Your task to perform on an android device: open app "Adobe Acrobat Reader: Edit PDF" (install if not already installed) Image 0: 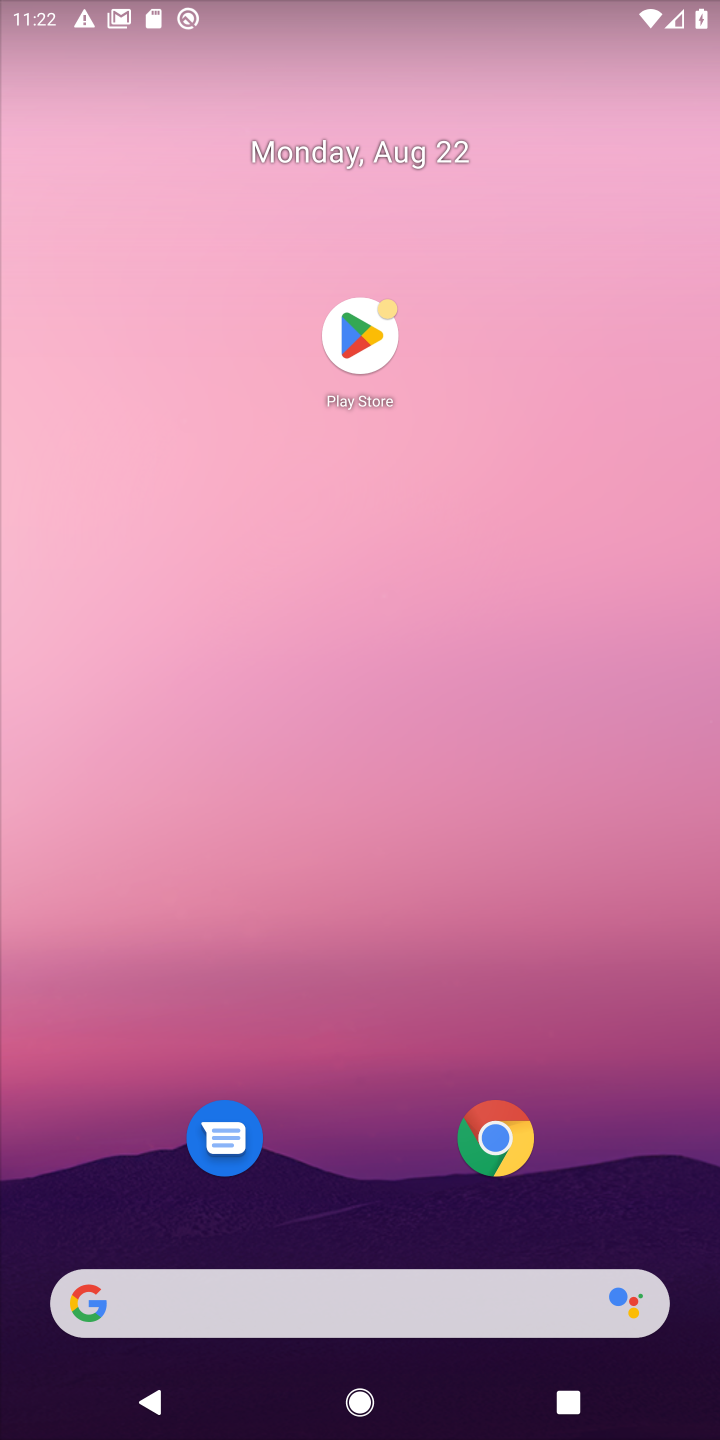
Step 0: press back button
Your task to perform on an android device: open app "Adobe Acrobat Reader: Edit PDF" (install if not already installed) Image 1: 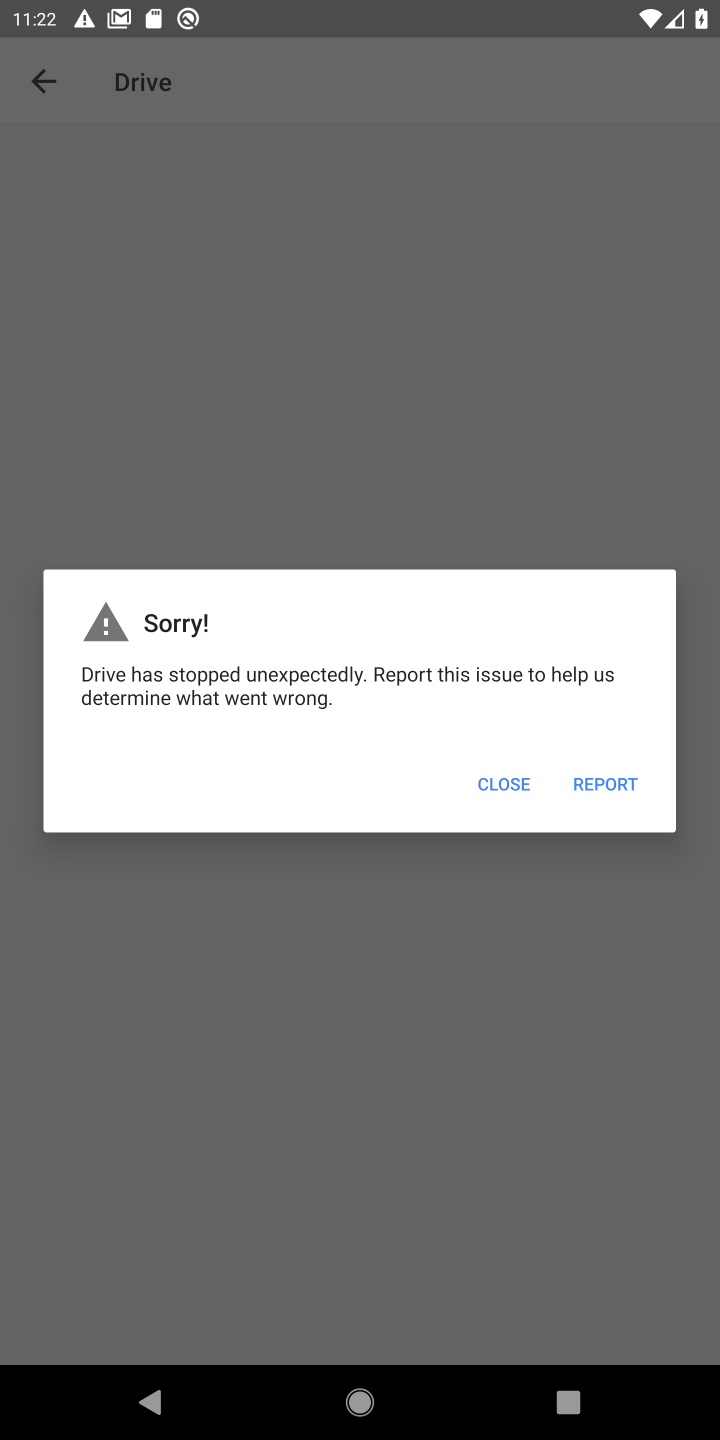
Step 1: press back button
Your task to perform on an android device: open app "Adobe Acrobat Reader: Edit PDF" (install if not already installed) Image 2: 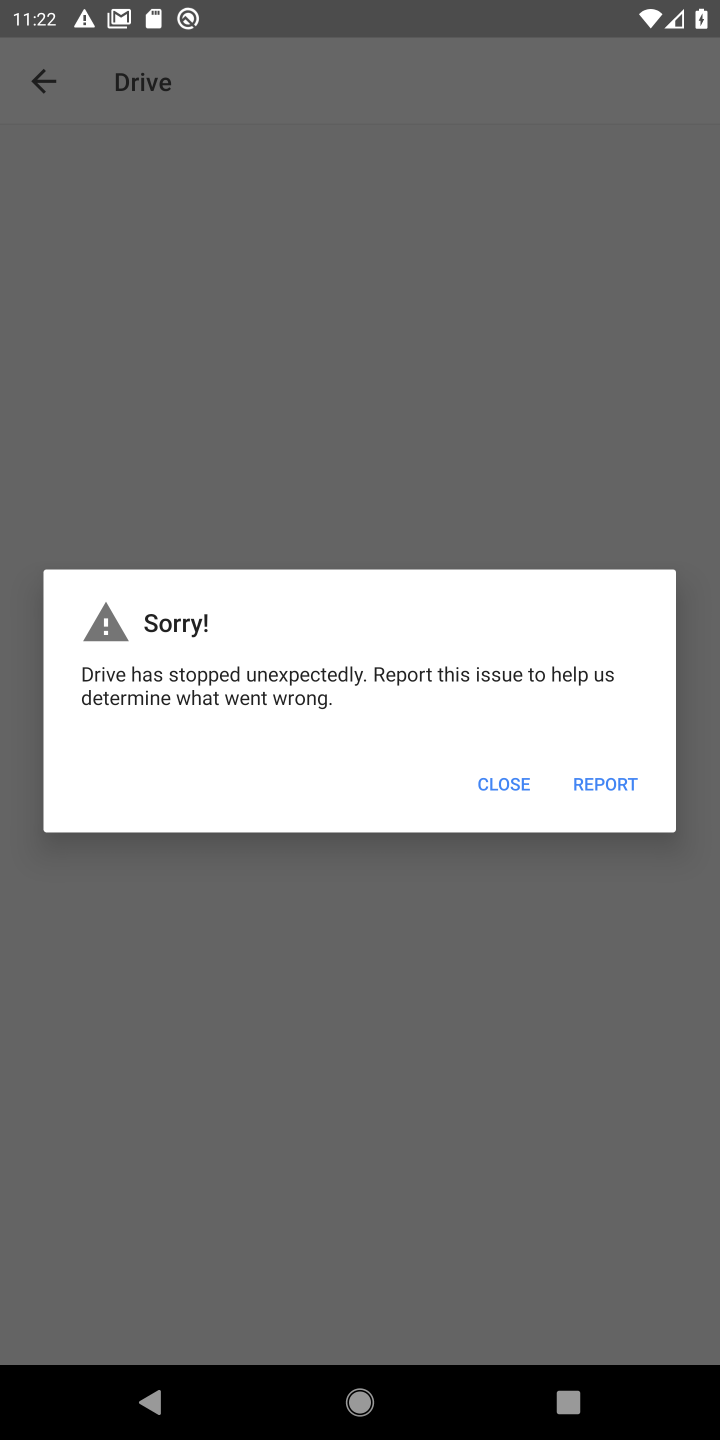
Step 2: press home button
Your task to perform on an android device: open app "Adobe Acrobat Reader: Edit PDF" (install if not already installed) Image 3: 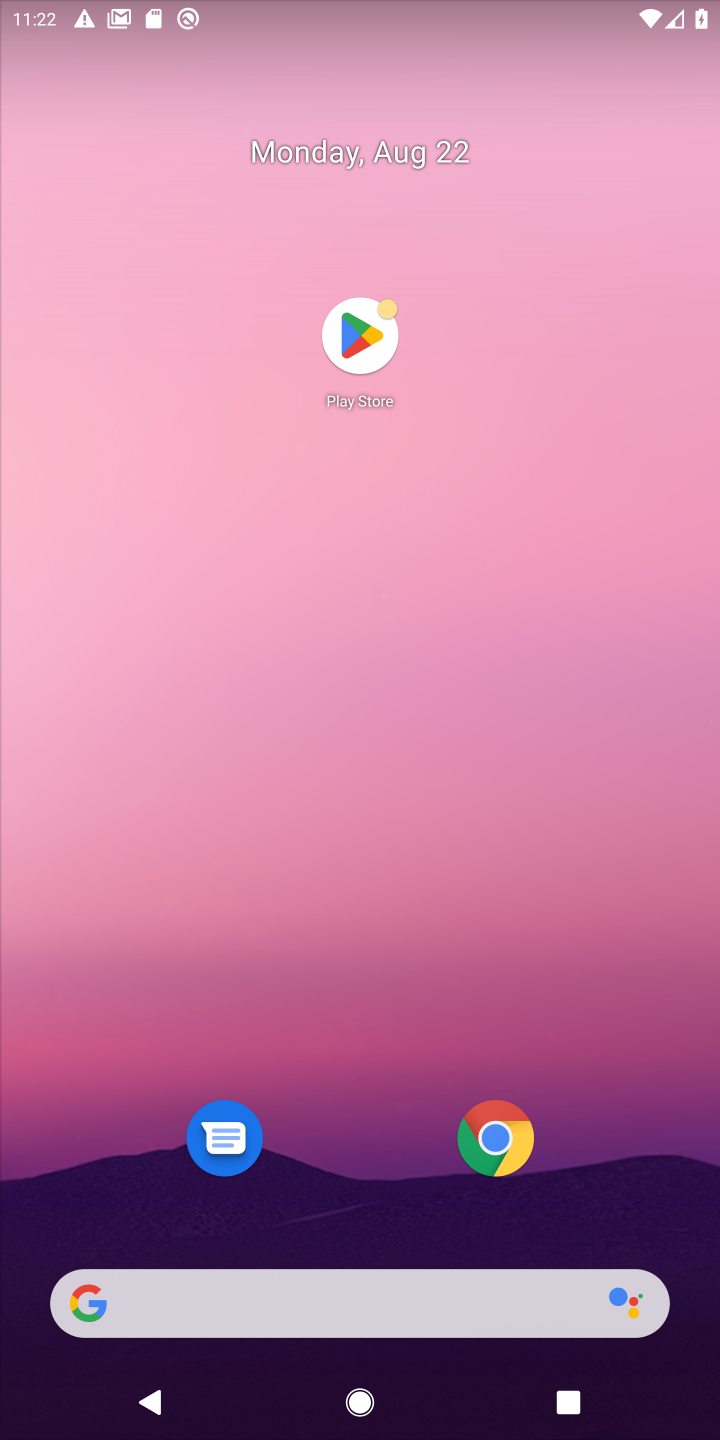
Step 3: click (372, 345)
Your task to perform on an android device: open app "Adobe Acrobat Reader: Edit PDF" (install if not already installed) Image 4: 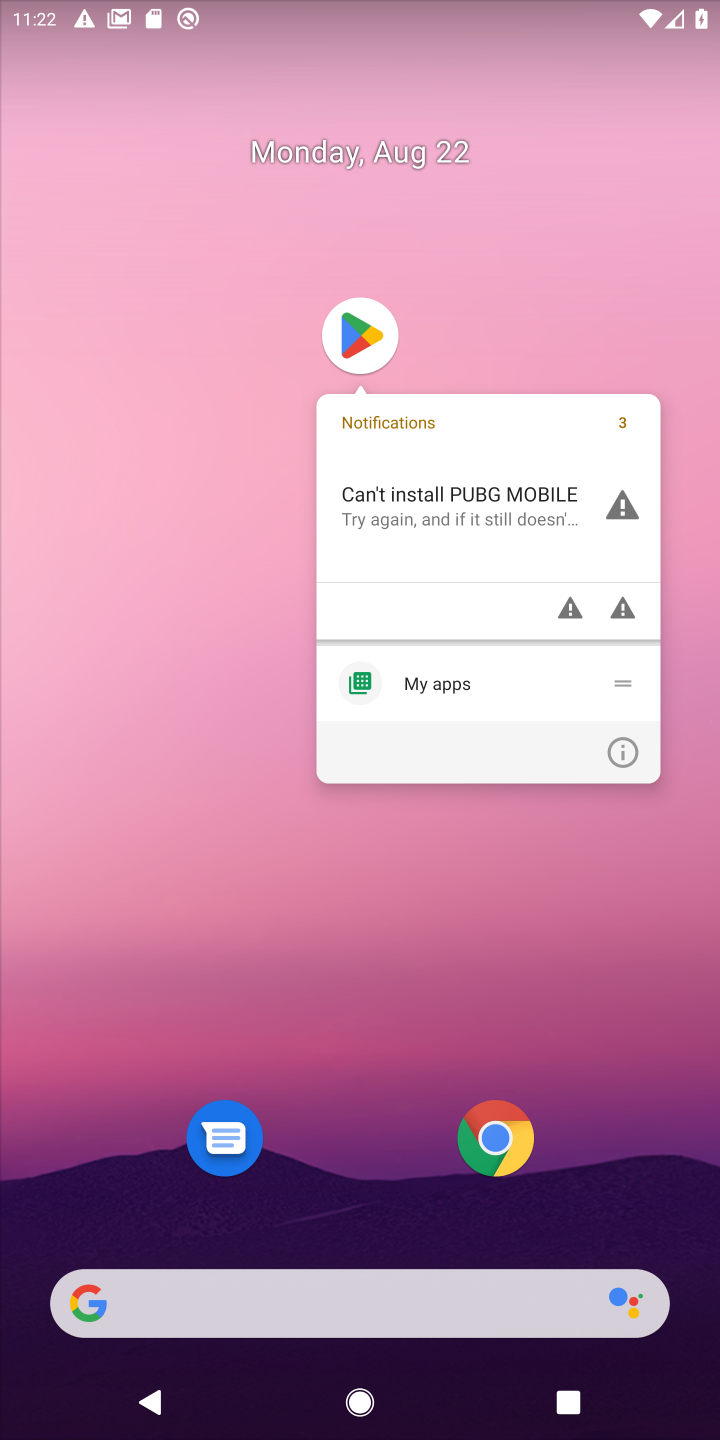
Step 4: click (363, 331)
Your task to perform on an android device: open app "Adobe Acrobat Reader: Edit PDF" (install if not already installed) Image 5: 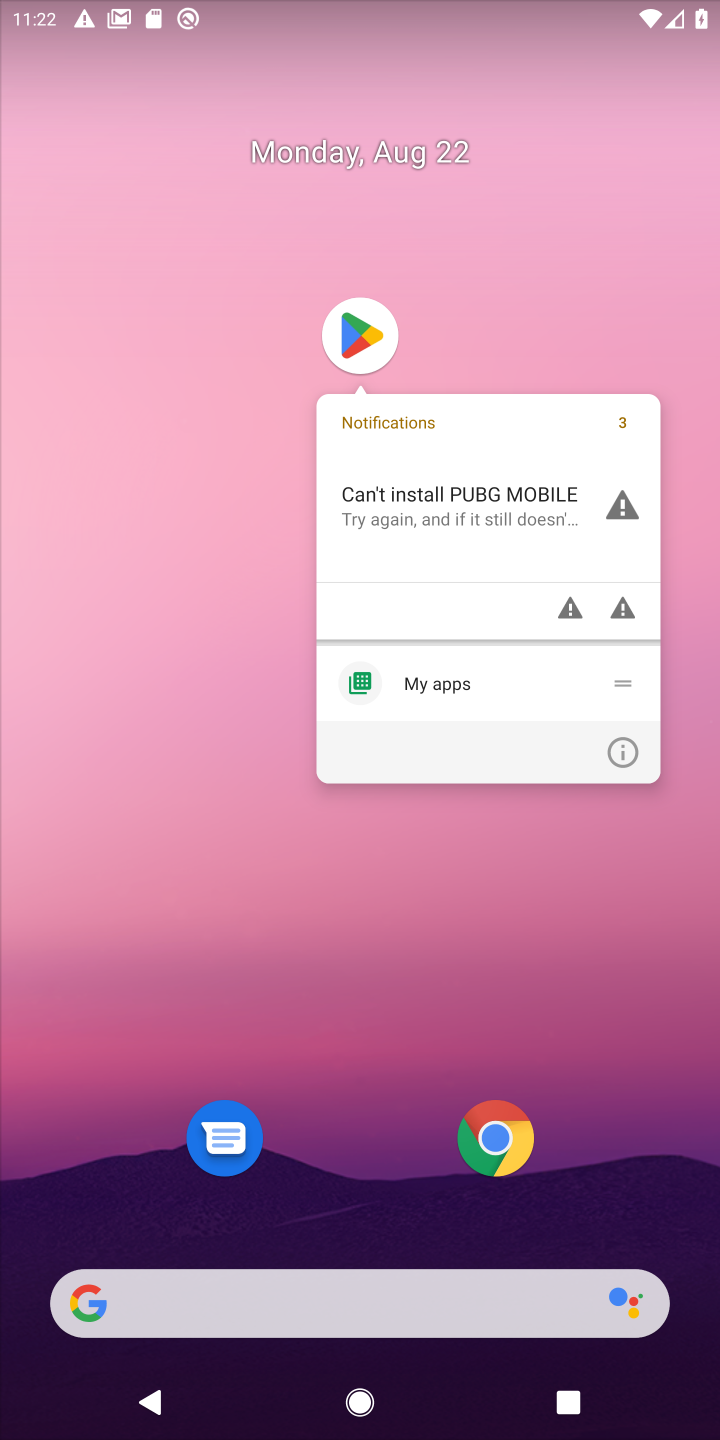
Step 5: click (363, 331)
Your task to perform on an android device: open app "Adobe Acrobat Reader: Edit PDF" (install if not already installed) Image 6: 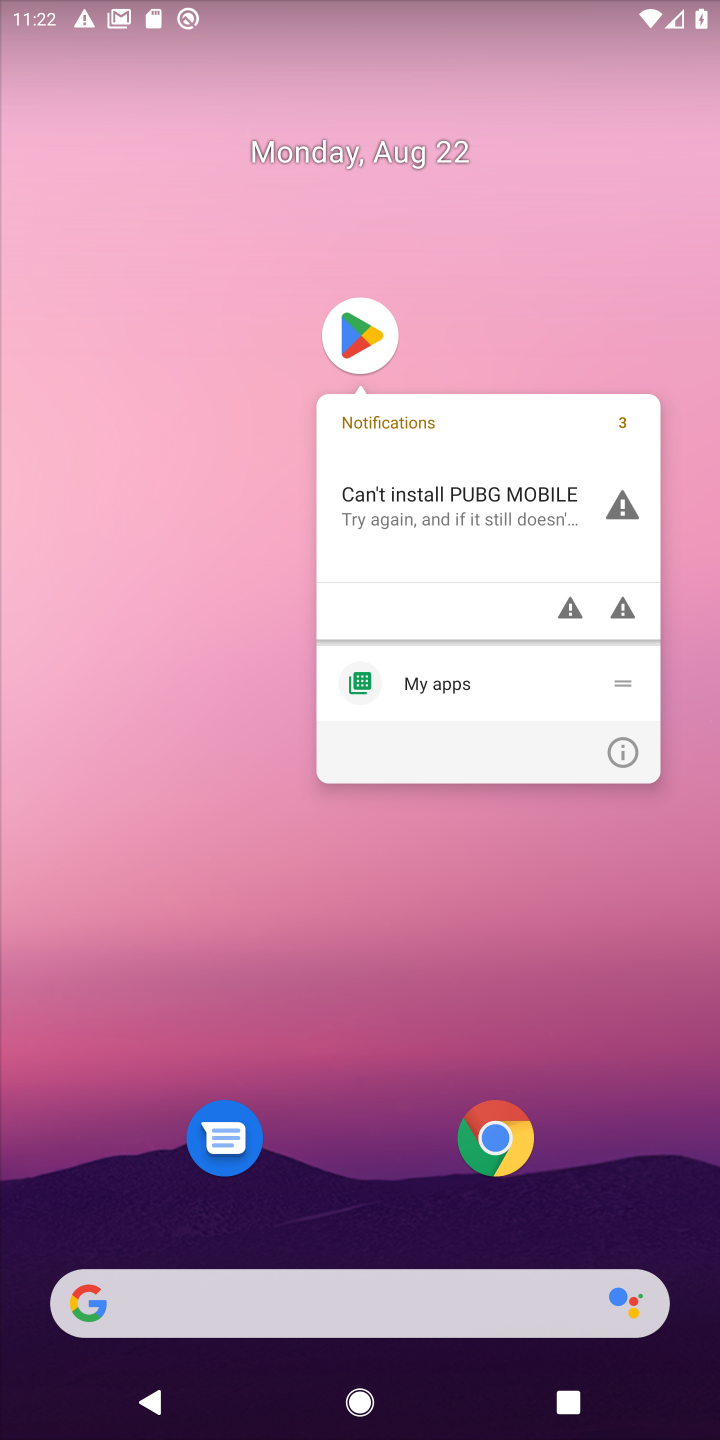
Step 6: click (363, 331)
Your task to perform on an android device: open app "Adobe Acrobat Reader: Edit PDF" (install if not already installed) Image 7: 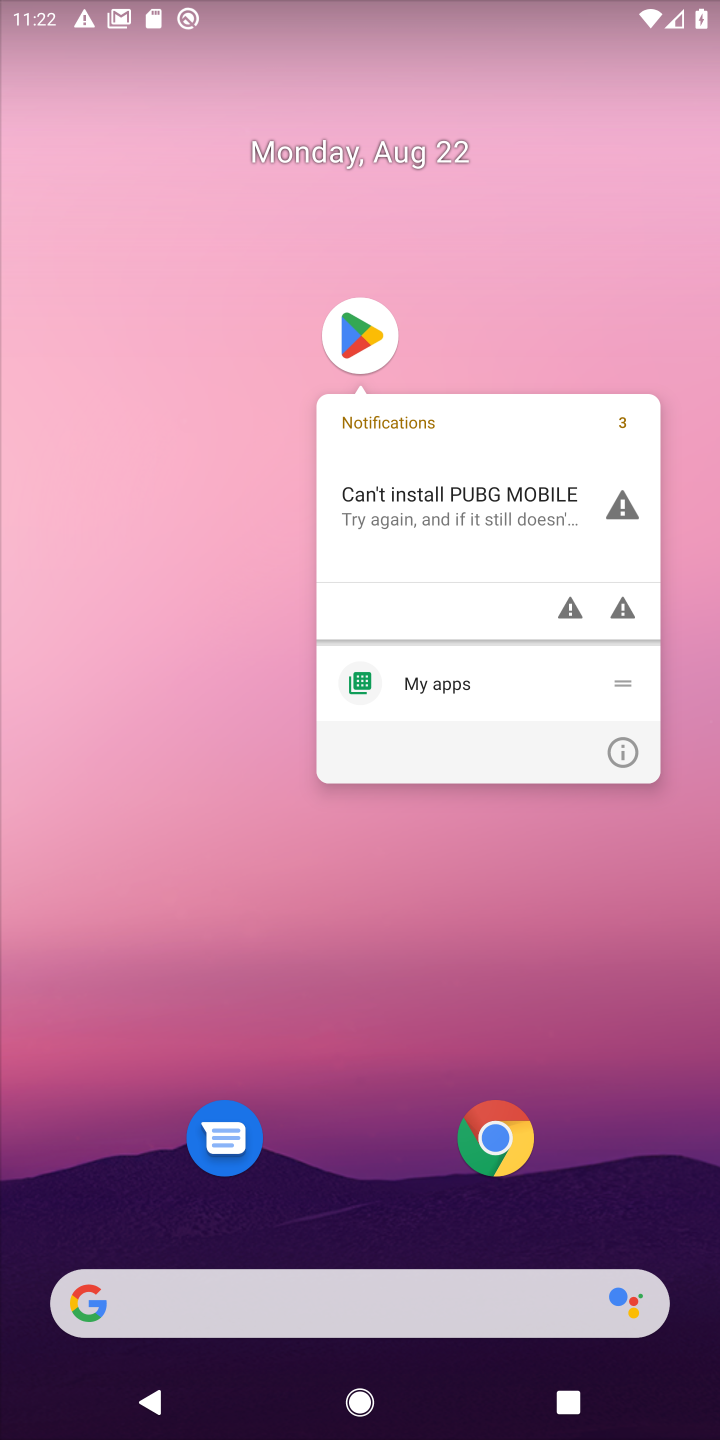
Step 7: click (363, 331)
Your task to perform on an android device: open app "Adobe Acrobat Reader: Edit PDF" (install if not already installed) Image 8: 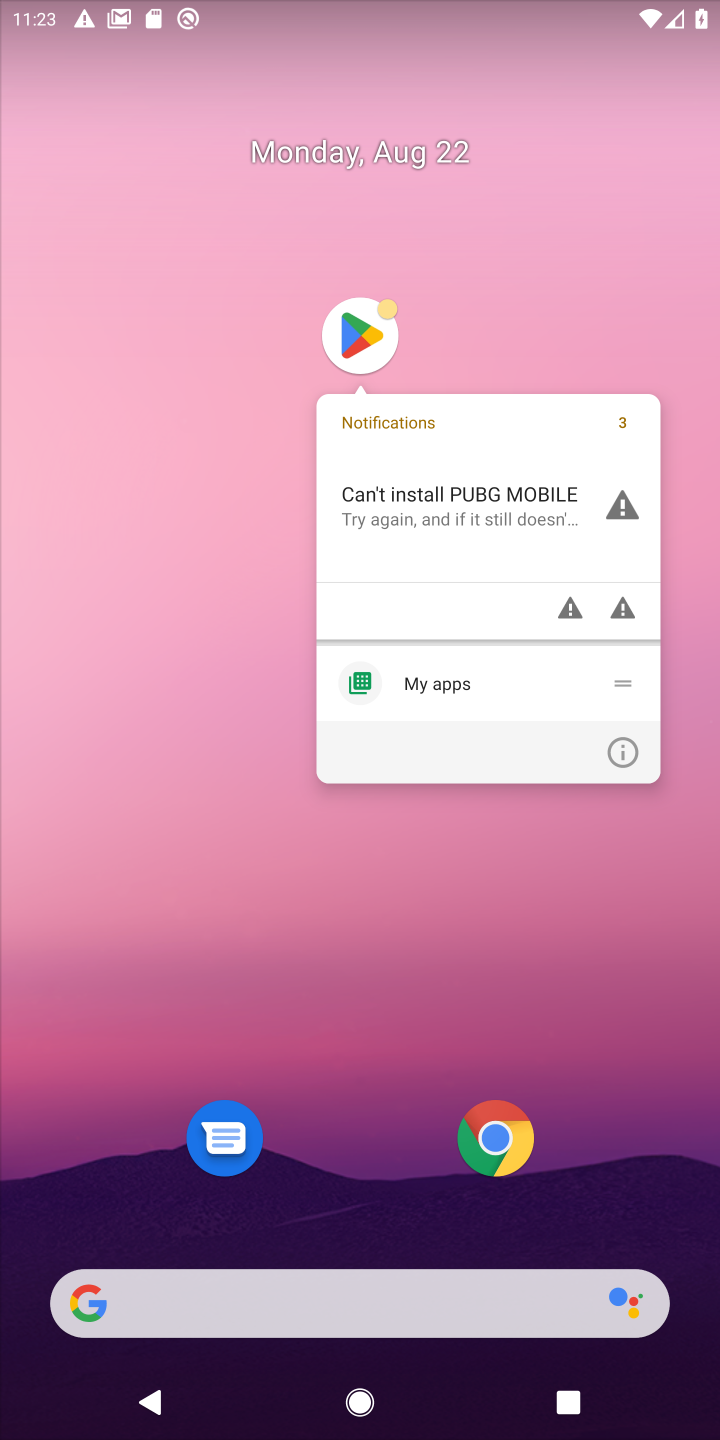
Step 8: click (371, 331)
Your task to perform on an android device: open app "Adobe Acrobat Reader: Edit PDF" (install if not already installed) Image 9: 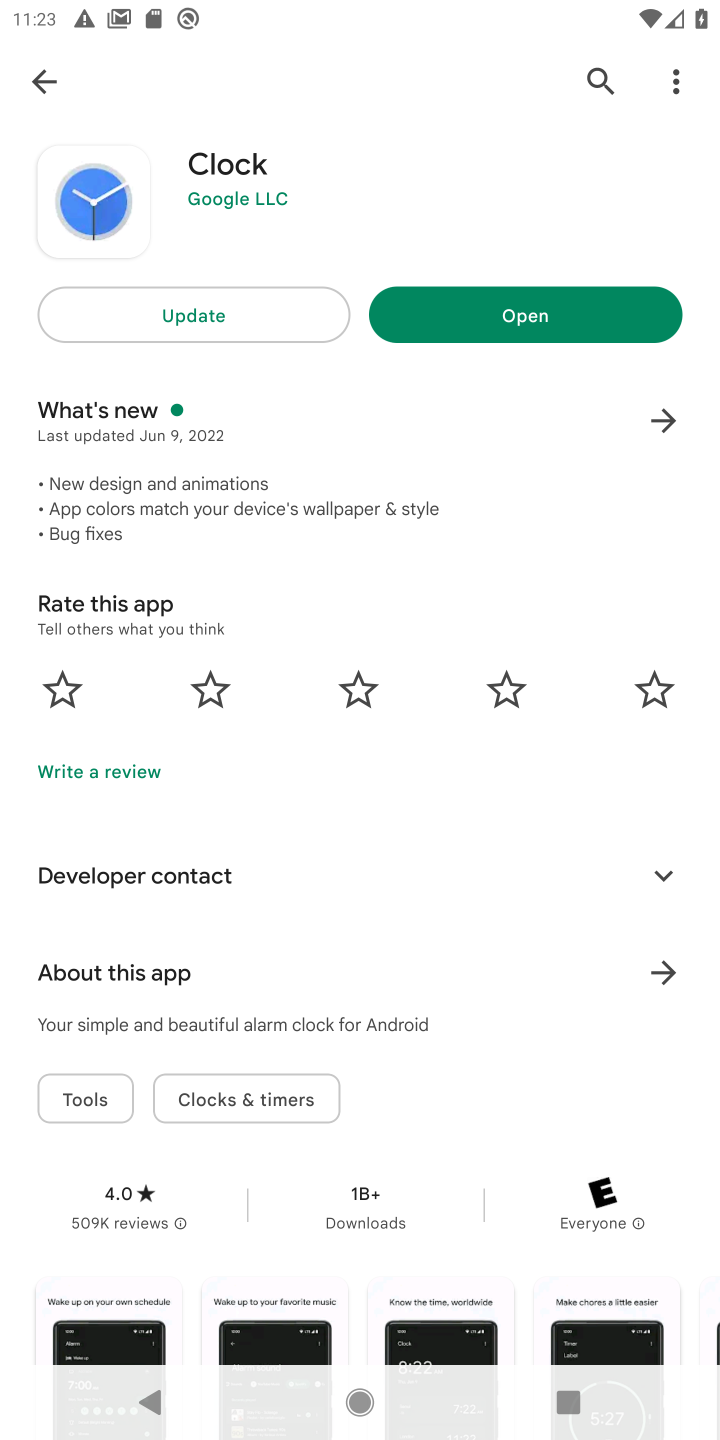
Step 9: click (594, 73)
Your task to perform on an android device: open app "Adobe Acrobat Reader: Edit PDF" (install if not already installed) Image 10: 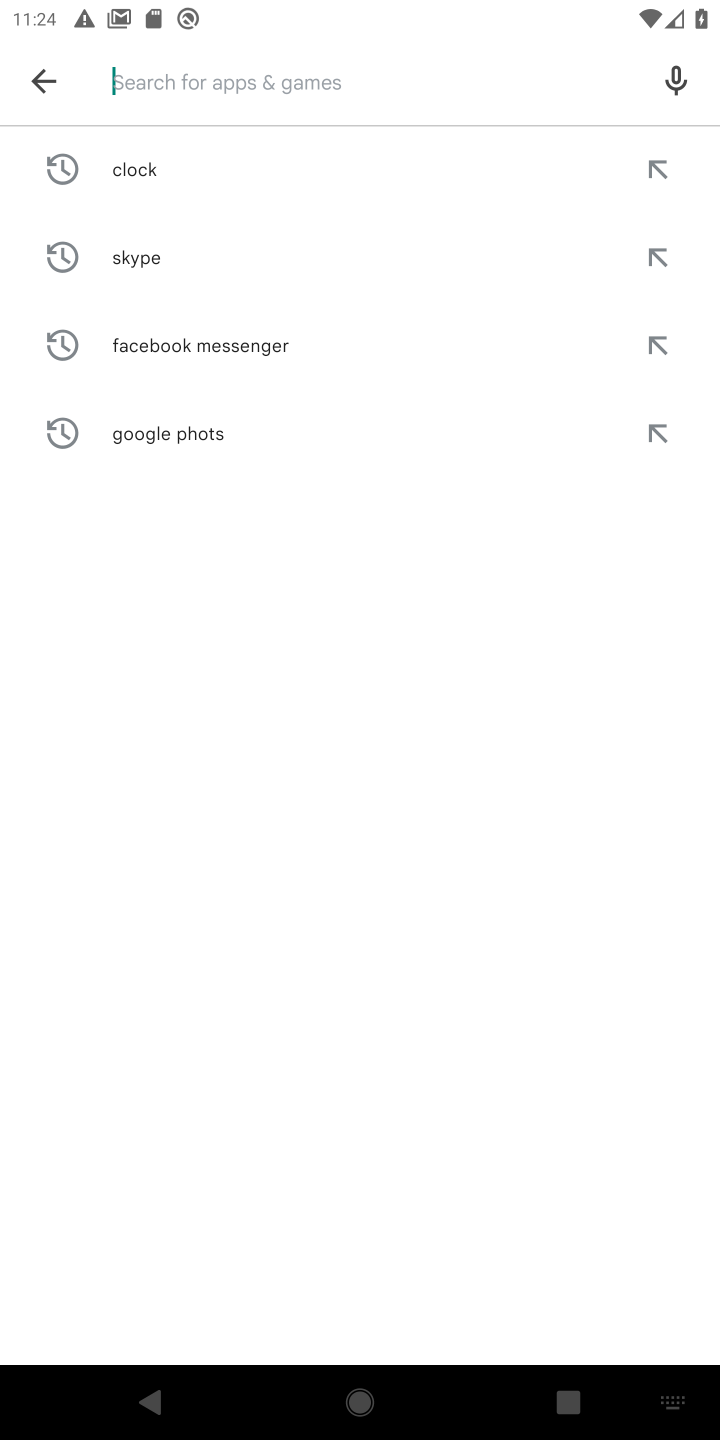
Step 10: click (596, 73)
Your task to perform on an android device: open app "Adobe Acrobat Reader: Edit PDF" (install if not already installed) Image 11: 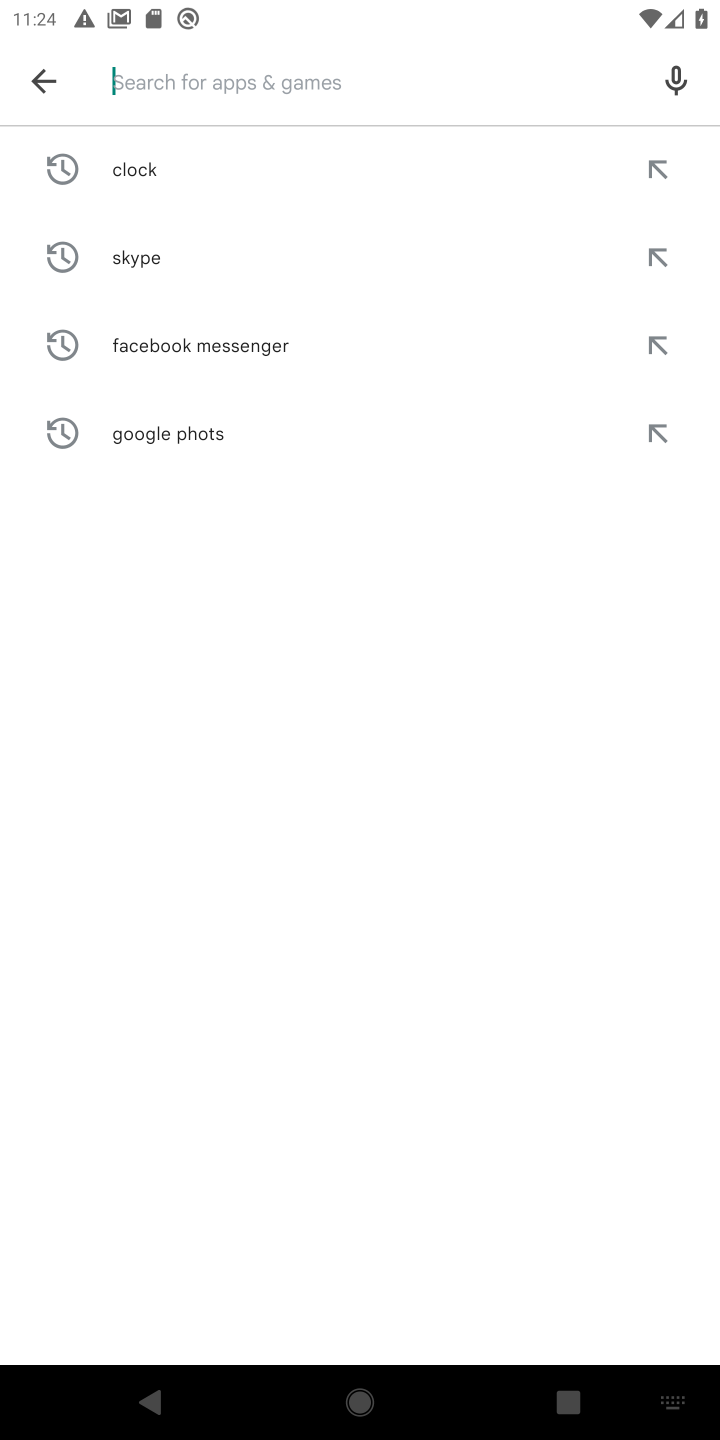
Step 11: type "Adobe Acrobat Reader: Edit PDF"
Your task to perform on an android device: open app "Adobe Acrobat Reader: Edit PDF" (install if not already installed) Image 12: 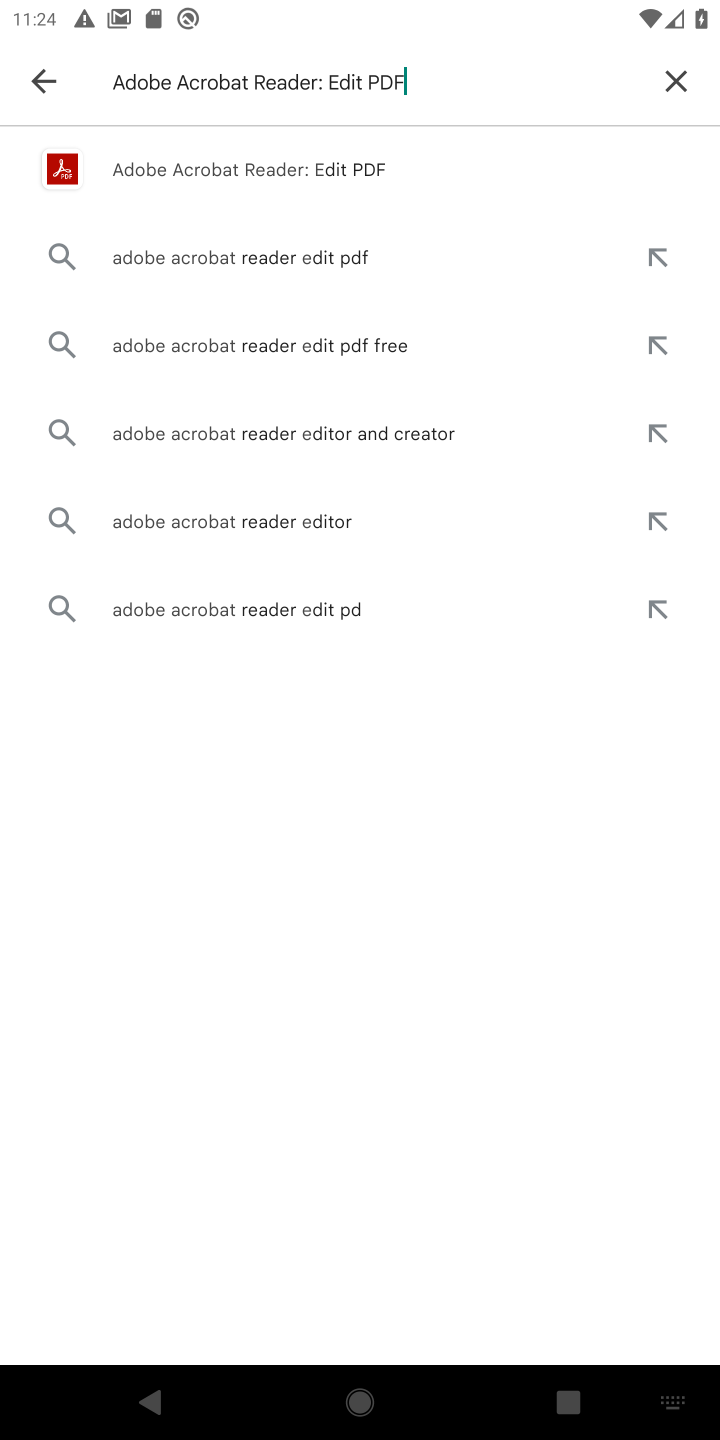
Step 12: type ""
Your task to perform on an android device: open app "Adobe Acrobat Reader: Edit PDF" (install if not already installed) Image 13: 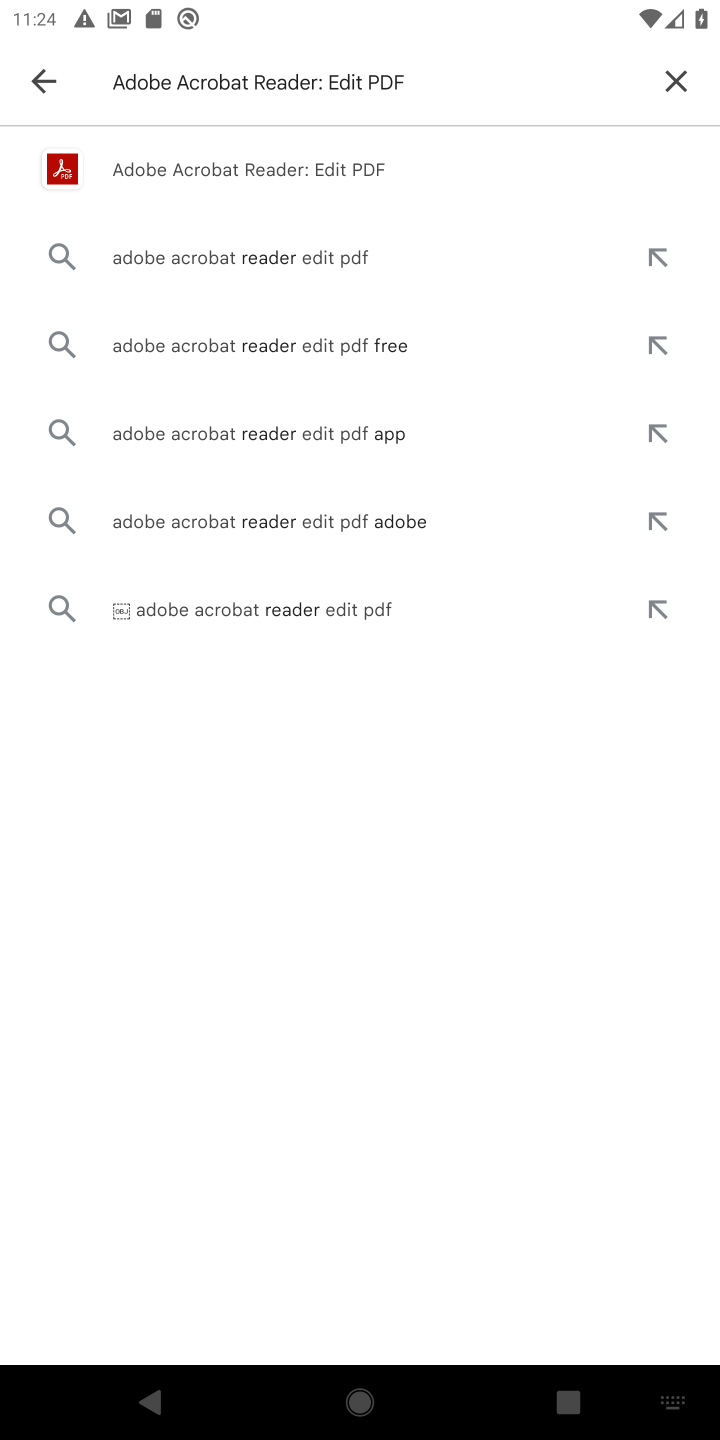
Step 13: click (255, 170)
Your task to perform on an android device: open app "Adobe Acrobat Reader: Edit PDF" (install if not already installed) Image 14: 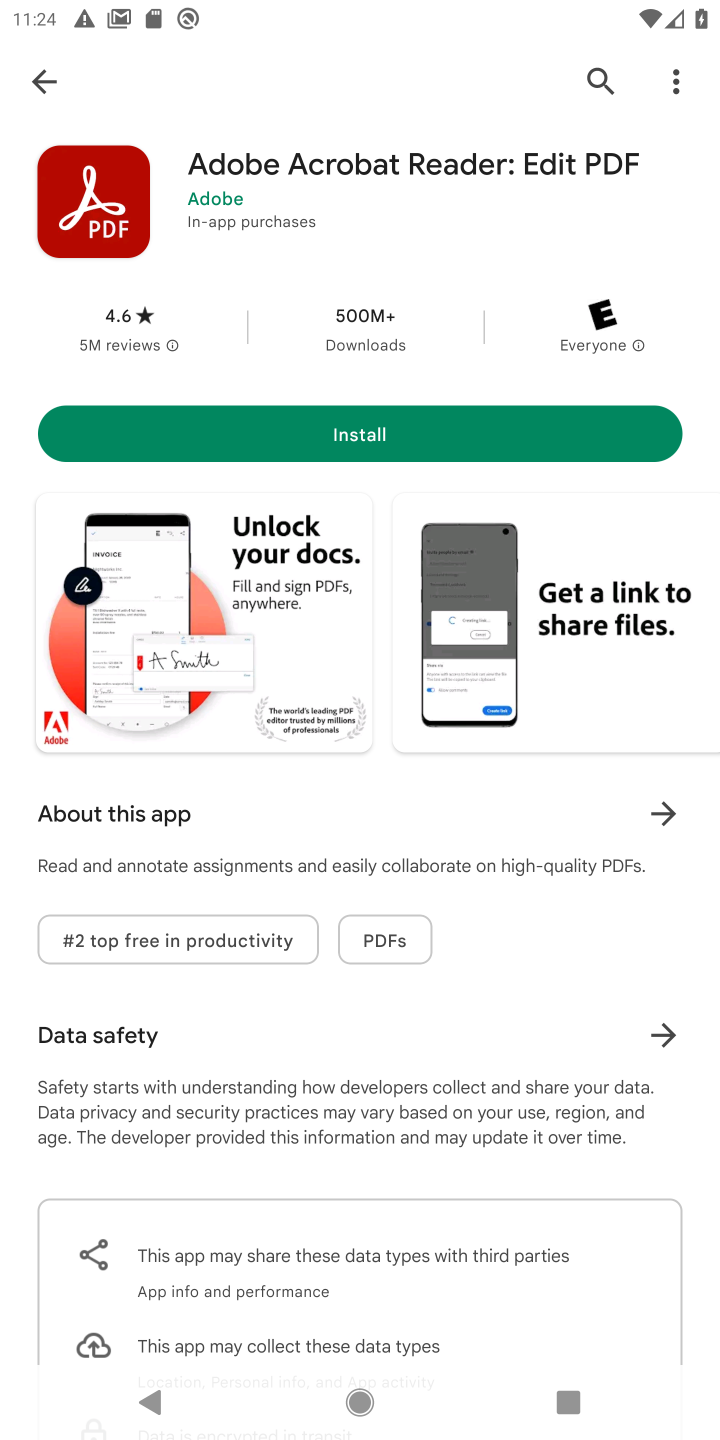
Step 14: click (353, 429)
Your task to perform on an android device: open app "Adobe Acrobat Reader: Edit PDF" (install if not already installed) Image 15: 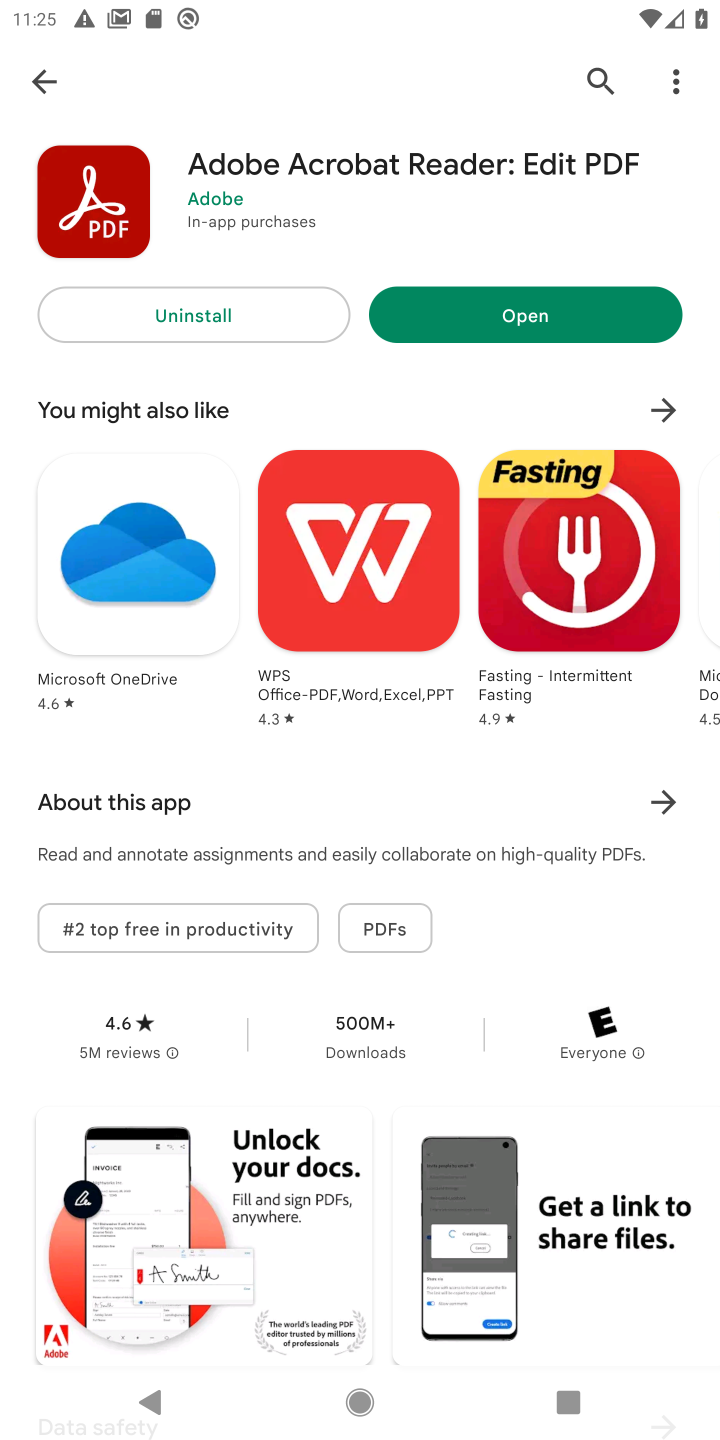
Step 15: click (500, 300)
Your task to perform on an android device: open app "Adobe Acrobat Reader: Edit PDF" (install if not already installed) Image 16: 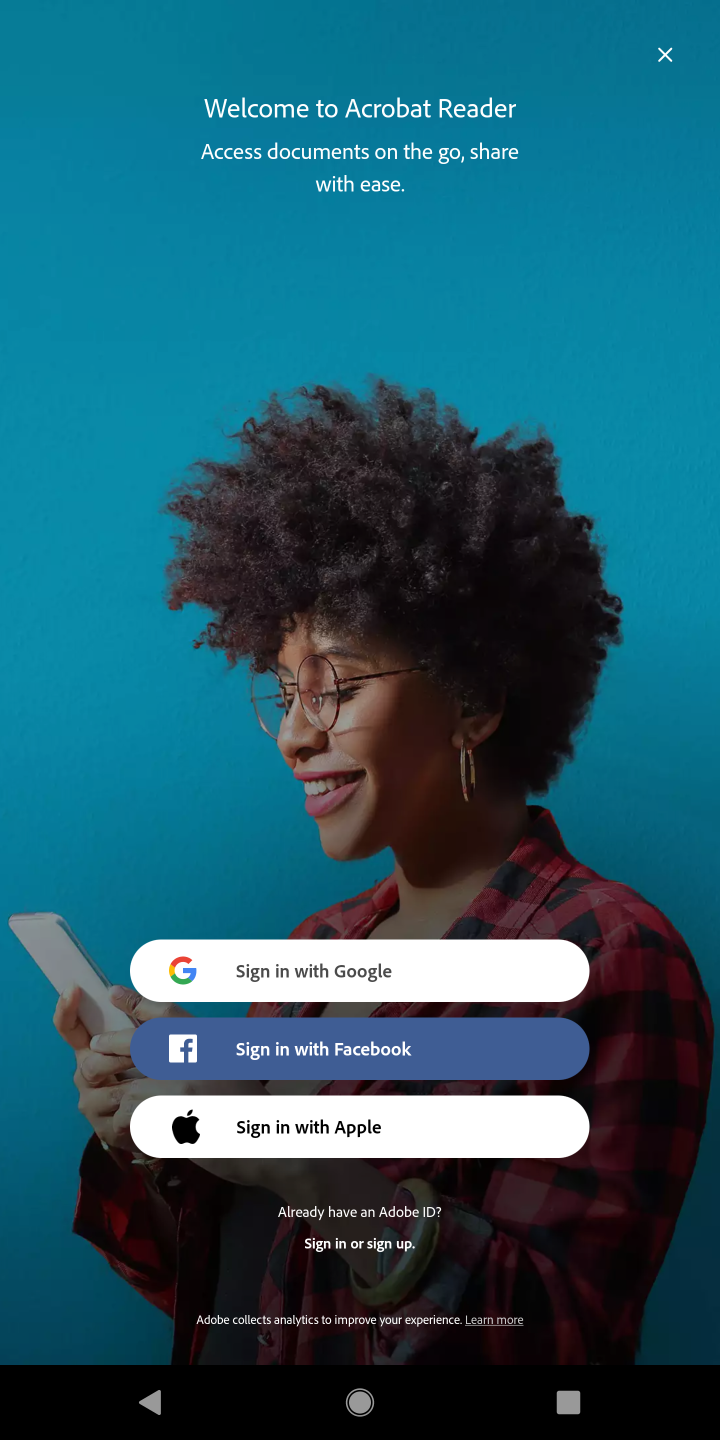
Step 16: task complete